Your task to perform on an android device: Open the map Image 0: 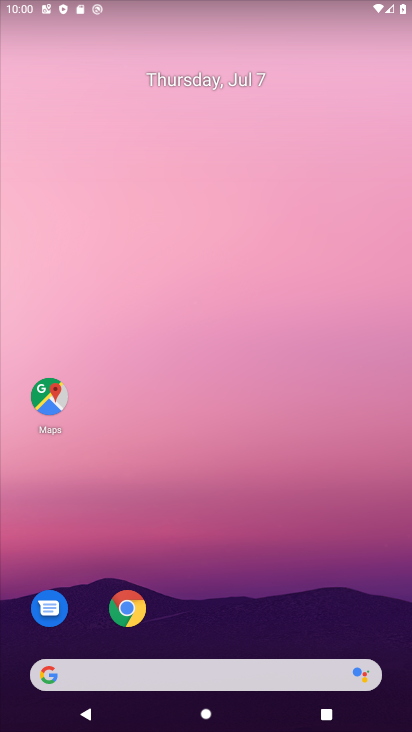
Step 0: drag from (212, 625) to (227, 136)
Your task to perform on an android device: Open the map Image 1: 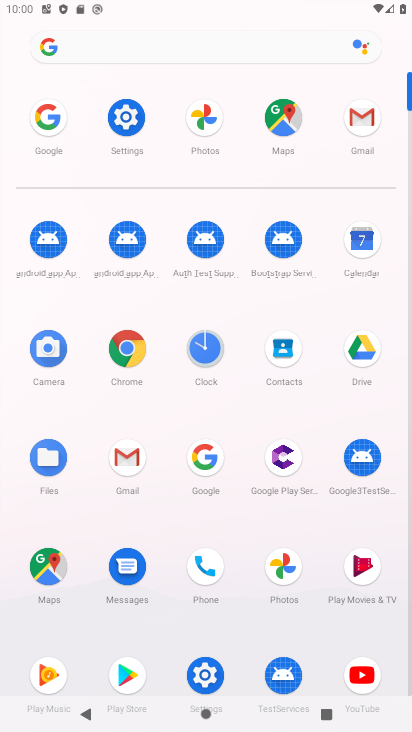
Step 1: click (50, 563)
Your task to perform on an android device: Open the map Image 2: 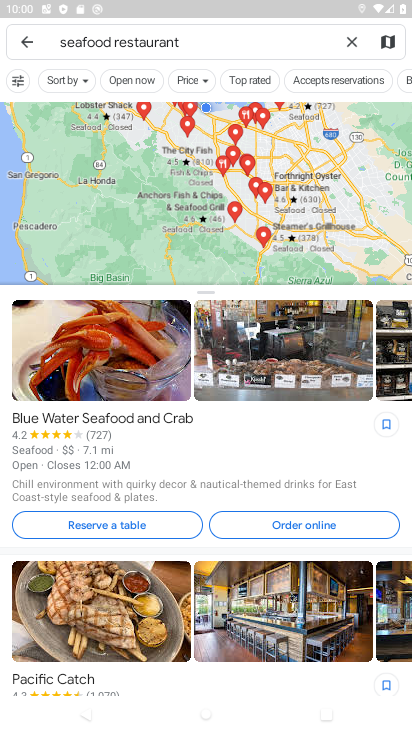
Step 2: task complete